Your task to perform on an android device: turn off picture-in-picture Image 0: 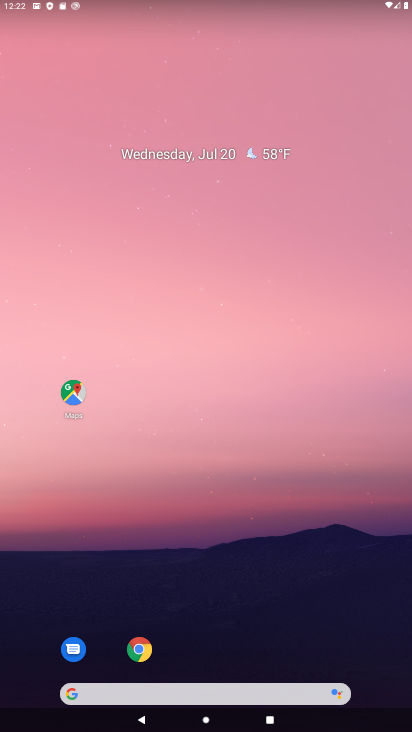
Step 0: click (138, 650)
Your task to perform on an android device: turn off picture-in-picture Image 1: 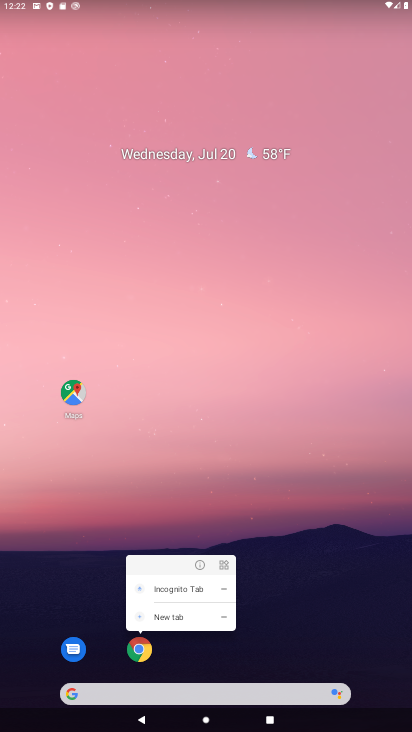
Step 1: click (197, 568)
Your task to perform on an android device: turn off picture-in-picture Image 2: 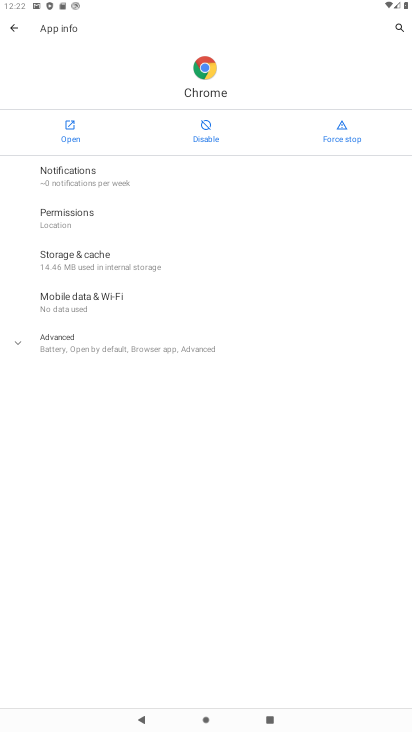
Step 2: click (55, 342)
Your task to perform on an android device: turn off picture-in-picture Image 3: 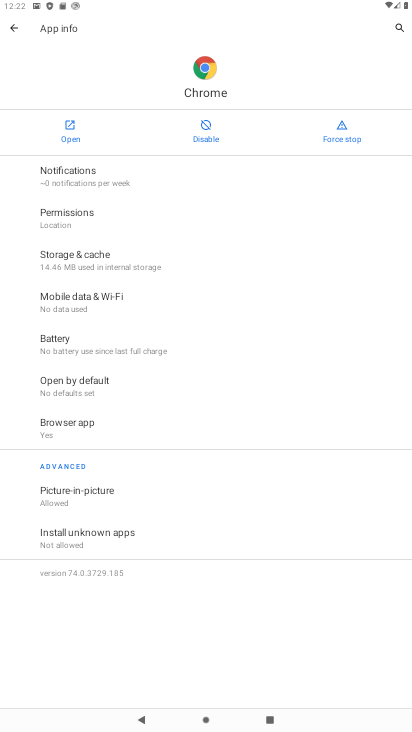
Step 3: click (67, 494)
Your task to perform on an android device: turn off picture-in-picture Image 4: 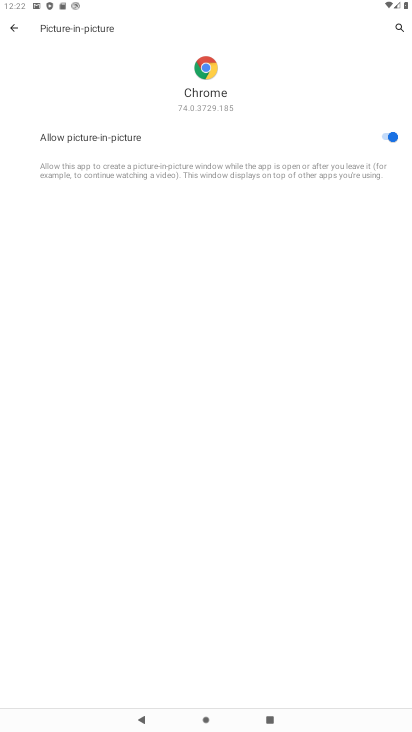
Step 4: click (387, 139)
Your task to perform on an android device: turn off picture-in-picture Image 5: 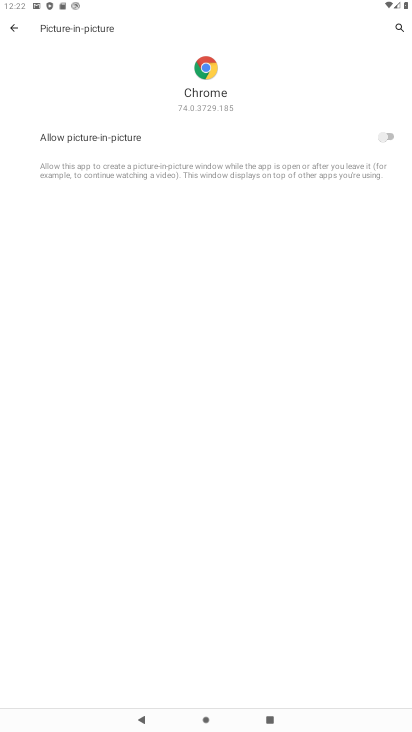
Step 5: task complete